Your task to perform on an android device: Check the weather Image 0: 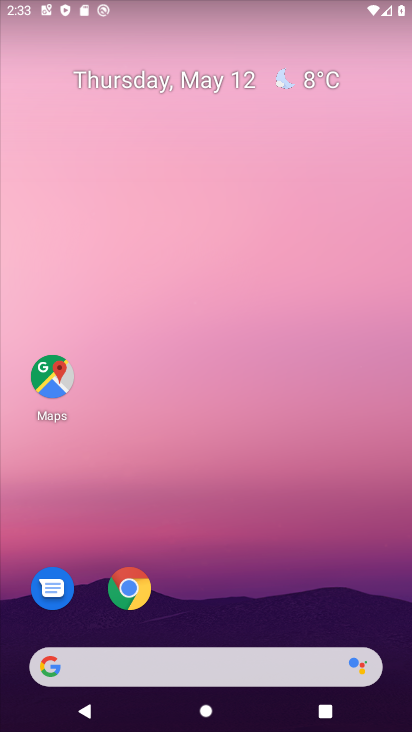
Step 0: drag from (268, 527) to (234, 10)
Your task to perform on an android device: Check the weather Image 1: 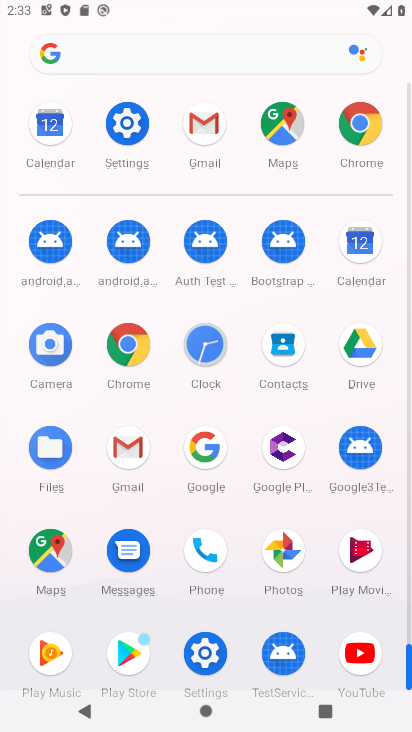
Step 1: drag from (0, 488) to (27, 202)
Your task to perform on an android device: Check the weather Image 2: 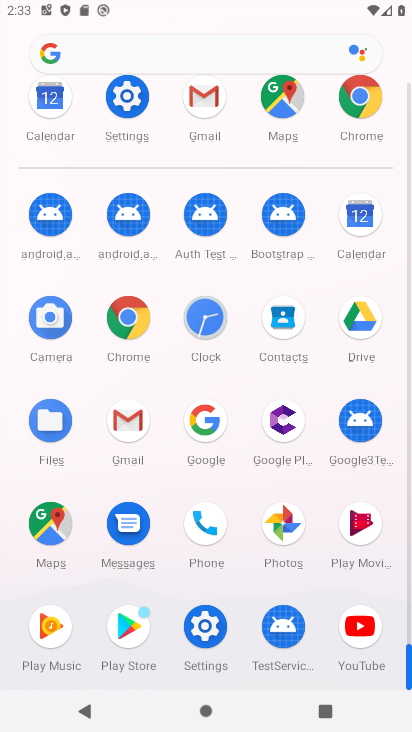
Step 2: click (126, 310)
Your task to perform on an android device: Check the weather Image 3: 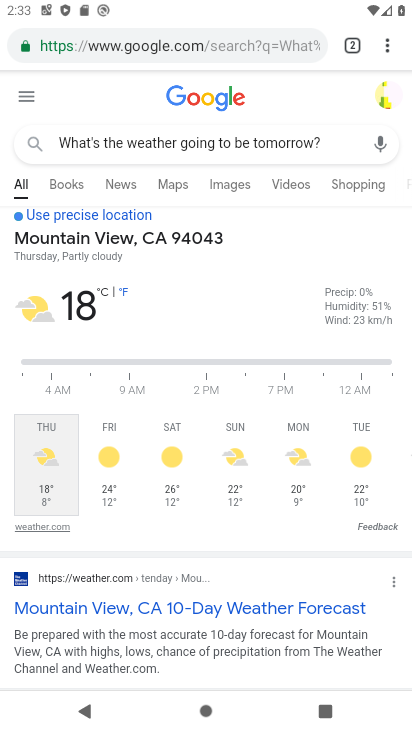
Step 3: click (259, 362)
Your task to perform on an android device: Check the weather Image 4: 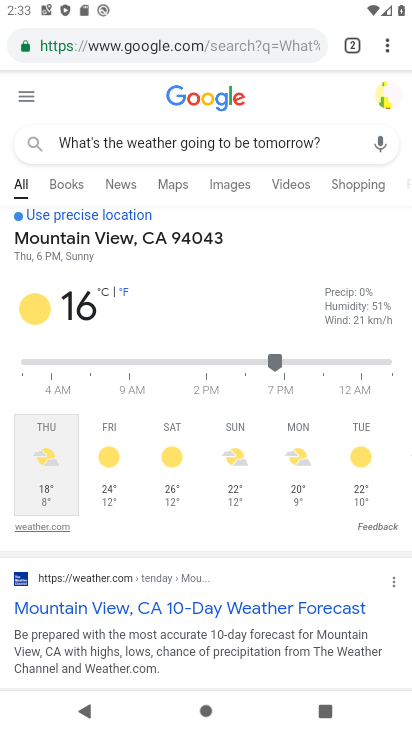
Step 4: task complete